Your task to perform on an android device: Set the phone to "Do not disturb". Image 0: 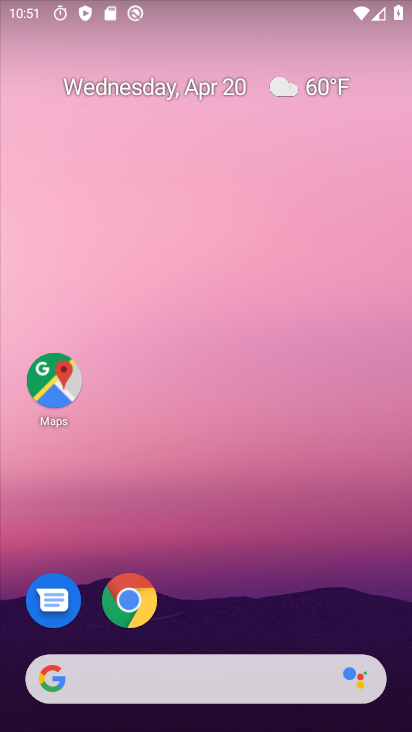
Step 0: drag from (207, 8) to (189, 457)
Your task to perform on an android device: Set the phone to "Do not disturb". Image 1: 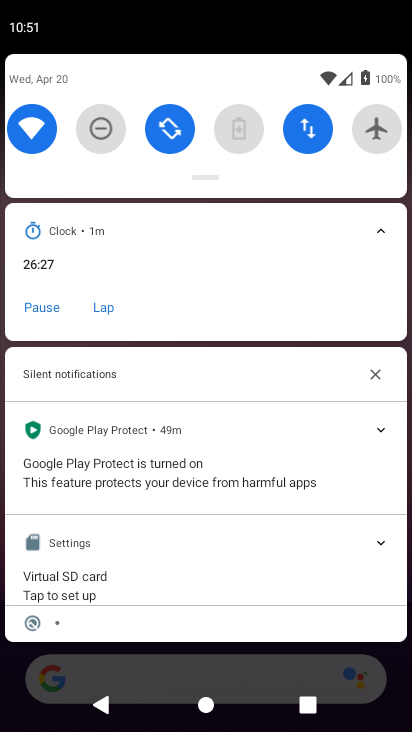
Step 1: click (96, 137)
Your task to perform on an android device: Set the phone to "Do not disturb". Image 2: 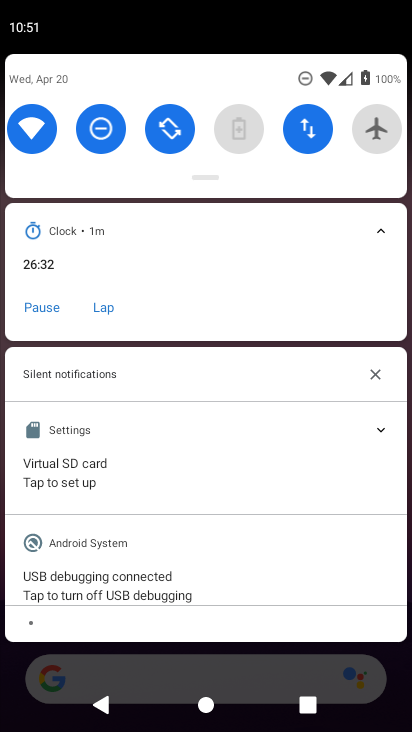
Step 2: task complete